Your task to perform on an android device: check the backup settings in the google photos Image 0: 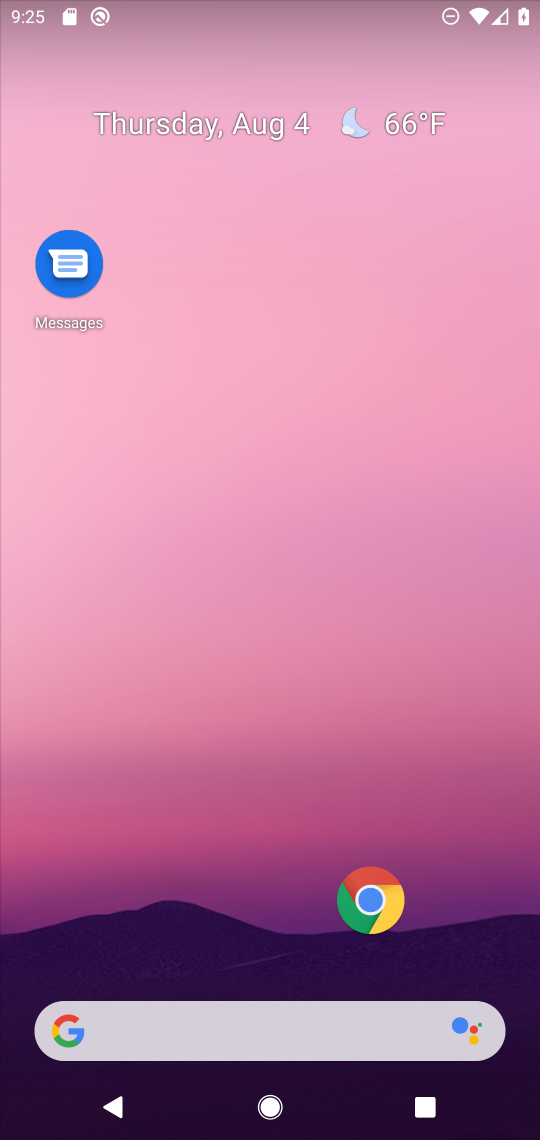
Step 0: drag from (392, 987) to (294, 52)
Your task to perform on an android device: check the backup settings in the google photos Image 1: 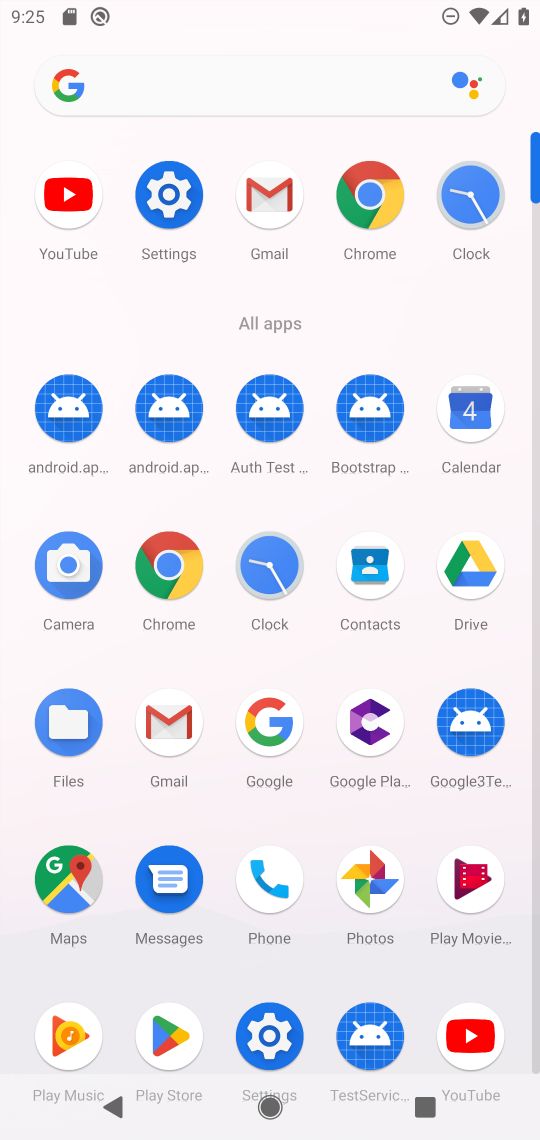
Step 1: click (362, 872)
Your task to perform on an android device: check the backup settings in the google photos Image 2: 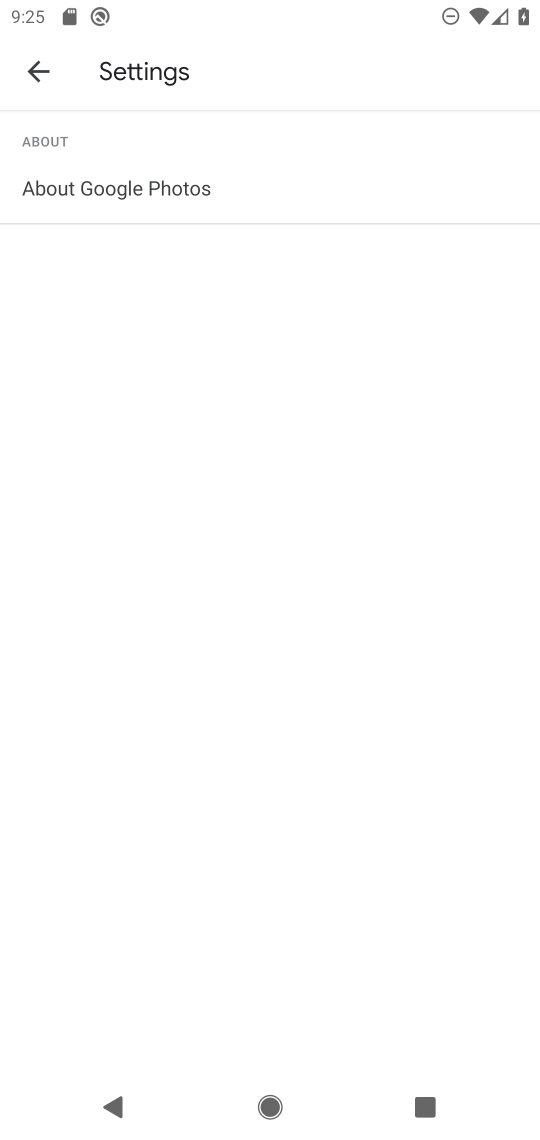
Step 2: press back button
Your task to perform on an android device: check the backup settings in the google photos Image 3: 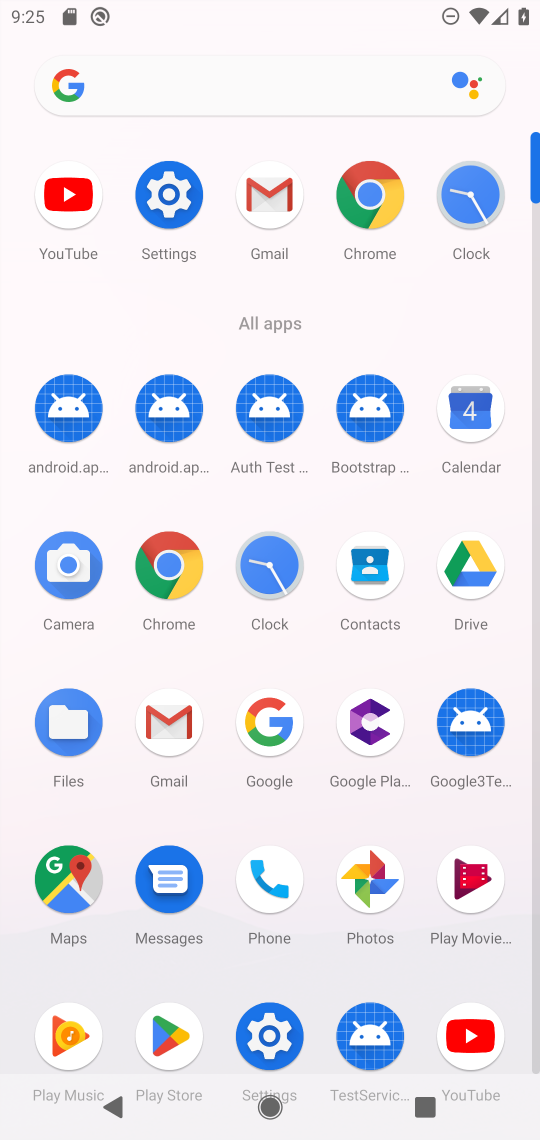
Step 3: click (372, 876)
Your task to perform on an android device: check the backup settings in the google photos Image 4: 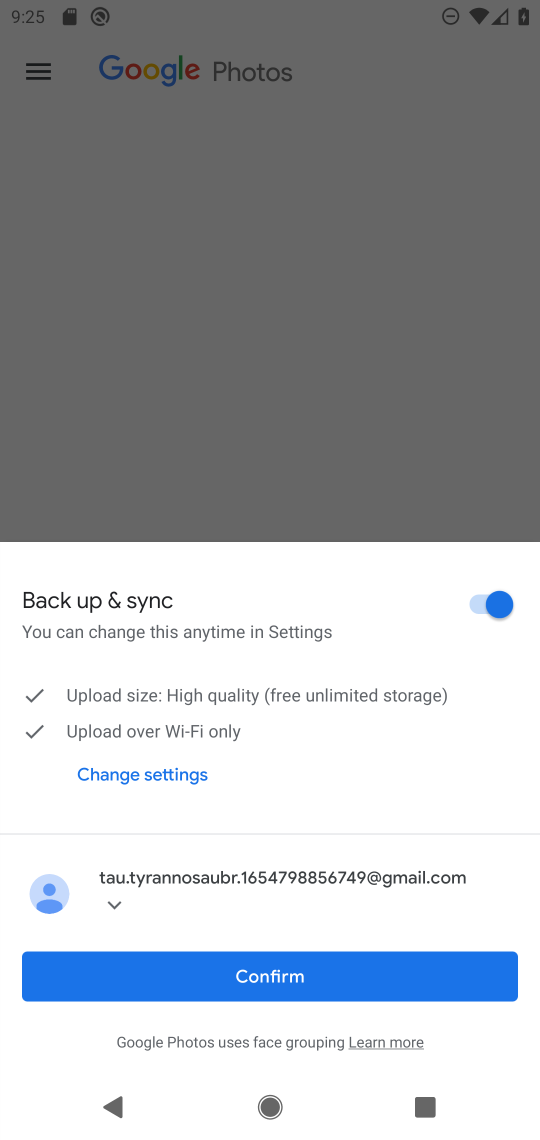
Step 4: click (206, 965)
Your task to perform on an android device: check the backup settings in the google photos Image 5: 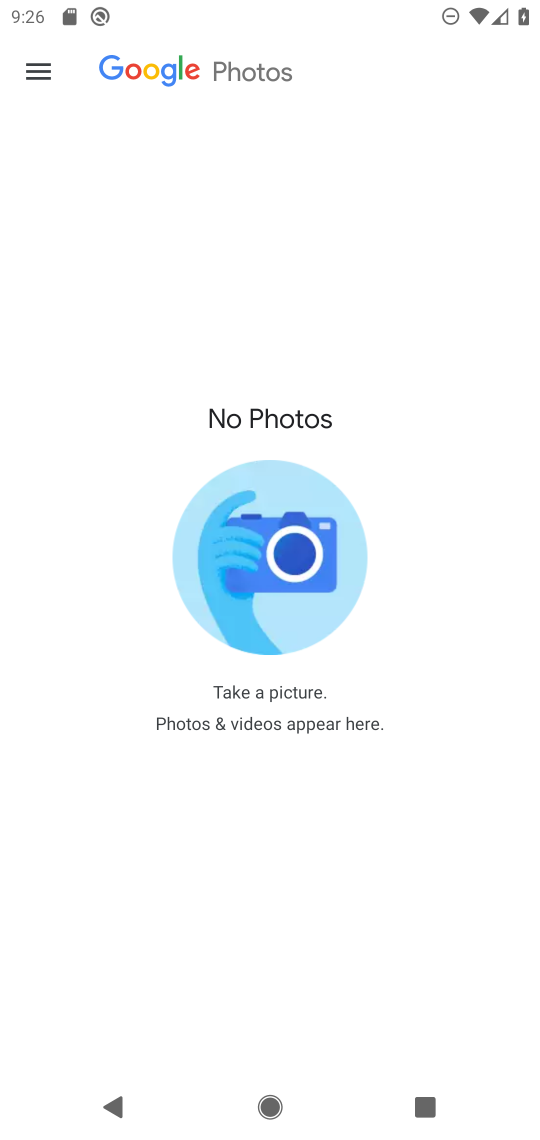
Step 5: click (34, 62)
Your task to perform on an android device: check the backup settings in the google photos Image 6: 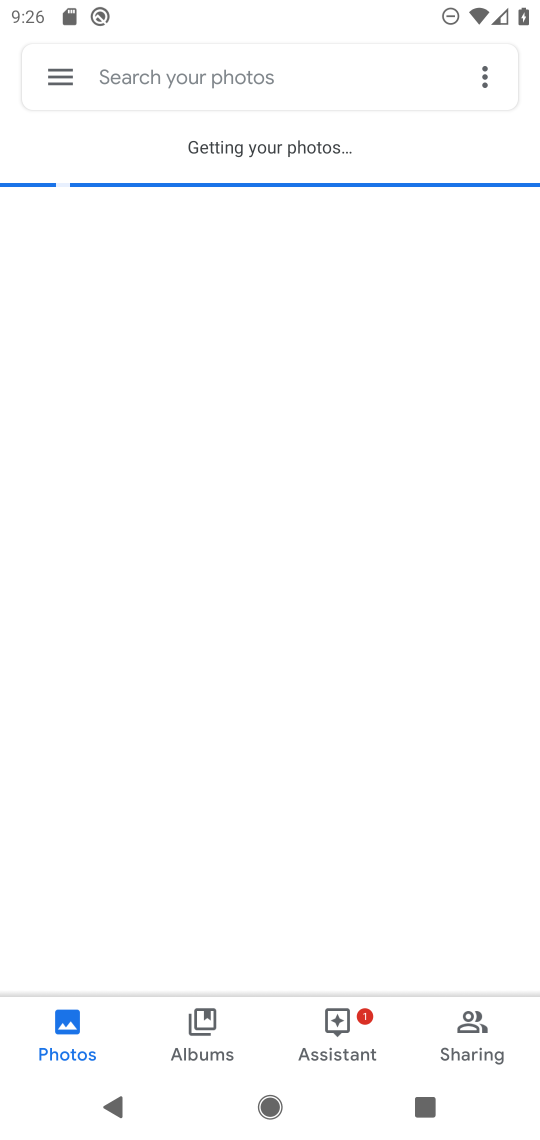
Step 6: click (68, 74)
Your task to perform on an android device: check the backup settings in the google photos Image 7: 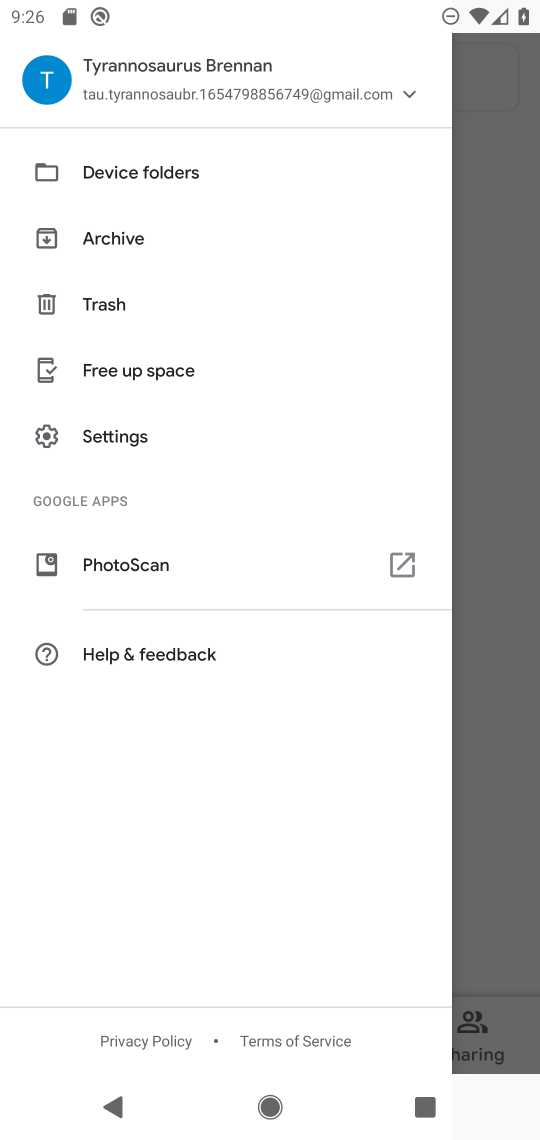
Step 7: click (140, 428)
Your task to perform on an android device: check the backup settings in the google photos Image 8: 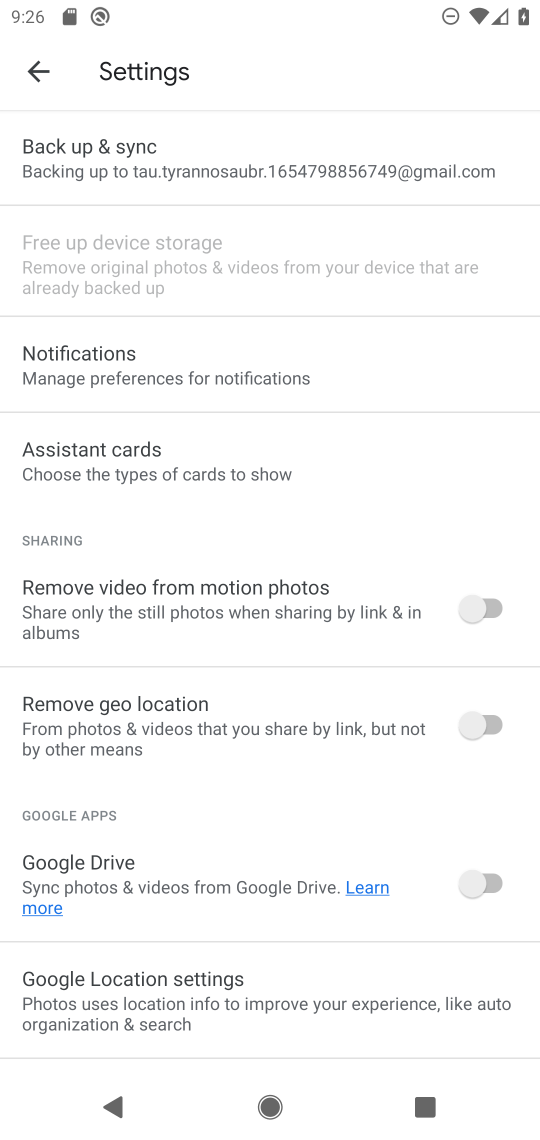
Step 8: click (125, 168)
Your task to perform on an android device: check the backup settings in the google photos Image 9: 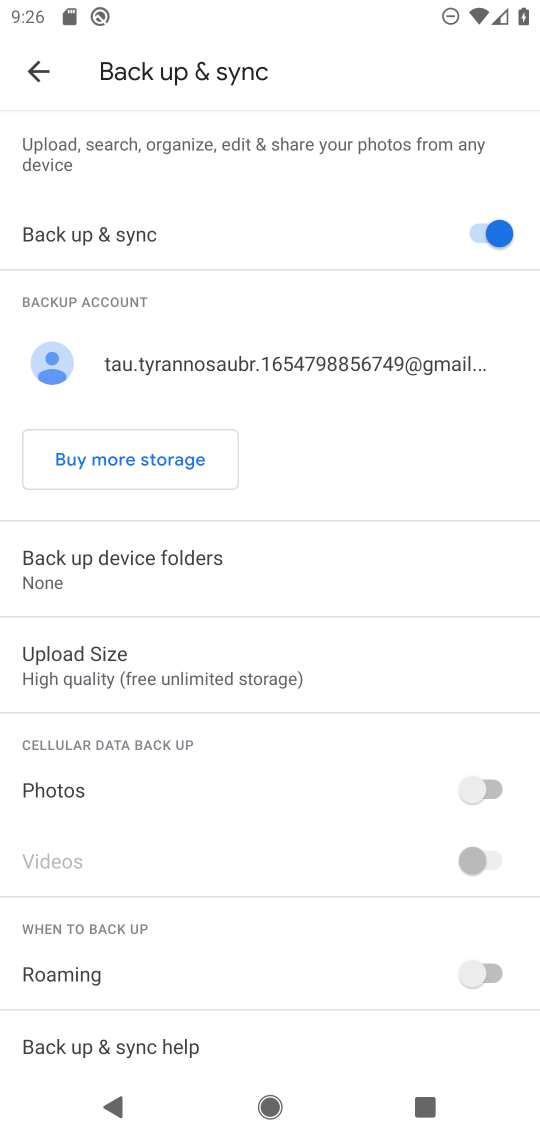
Step 9: task complete